Your task to perform on an android device: turn off javascript in the chrome app Image 0: 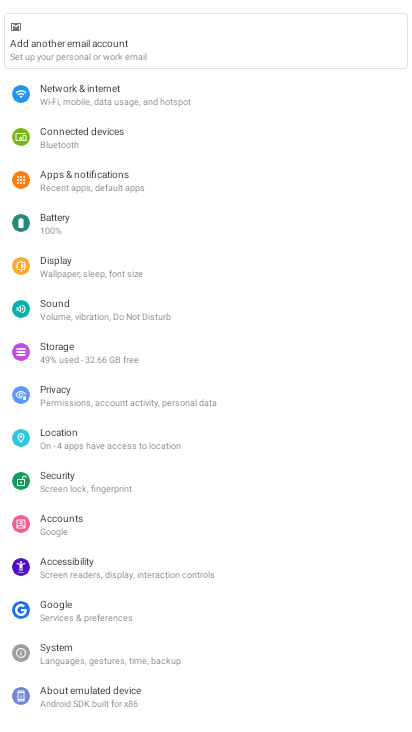
Step 0: press home button
Your task to perform on an android device: turn off javascript in the chrome app Image 1: 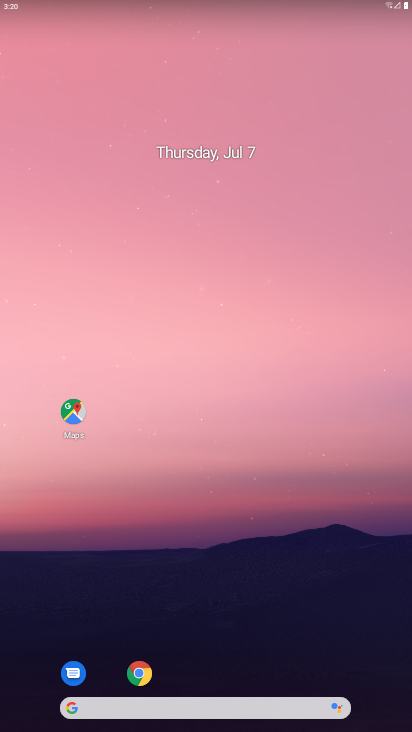
Step 1: click (141, 674)
Your task to perform on an android device: turn off javascript in the chrome app Image 2: 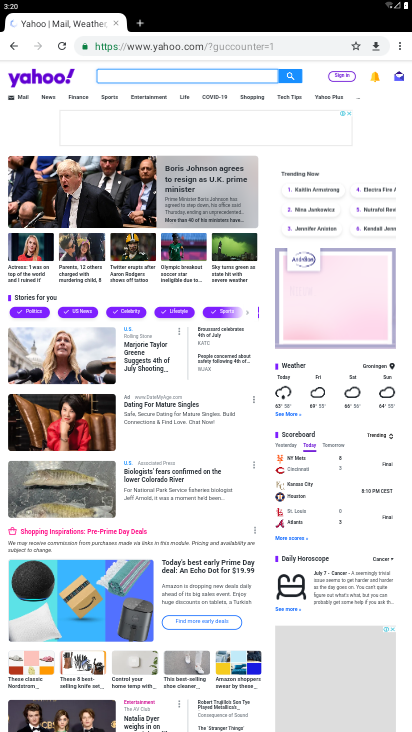
Step 2: drag from (399, 44) to (317, 313)
Your task to perform on an android device: turn off javascript in the chrome app Image 3: 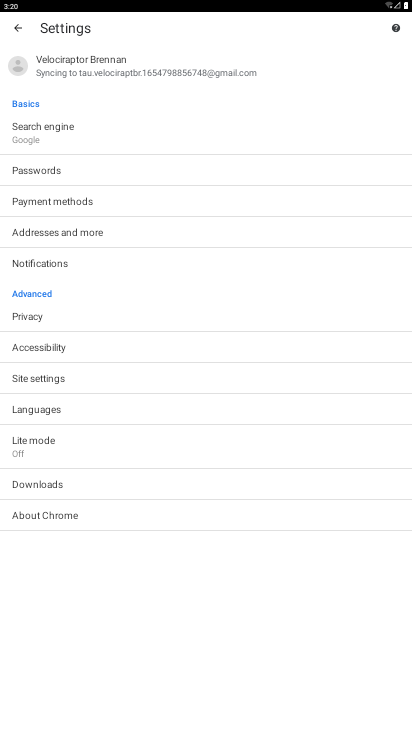
Step 3: click (52, 374)
Your task to perform on an android device: turn off javascript in the chrome app Image 4: 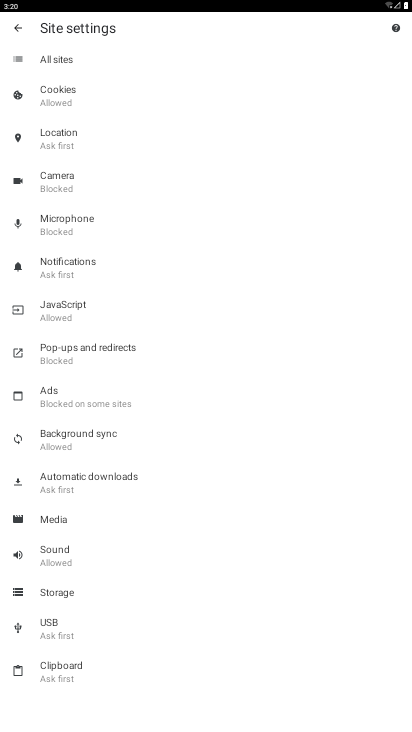
Step 4: click (74, 309)
Your task to perform on an android device: turn off javascript in the chrome app Image 5: 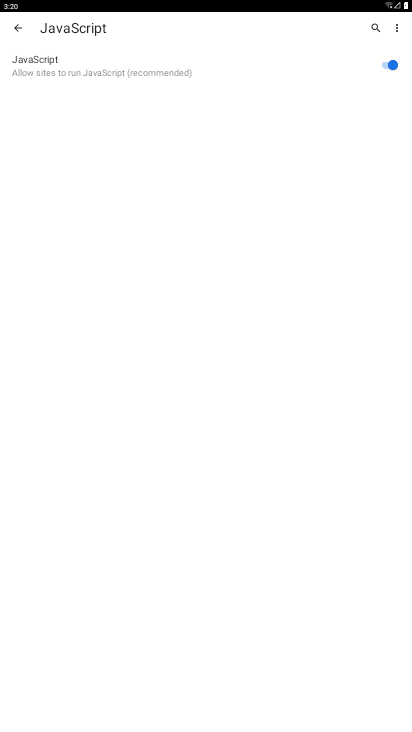
Step 5: click (384, 58)
Your task to perform on an android device: turn off javascript in the chrome app Image 6: 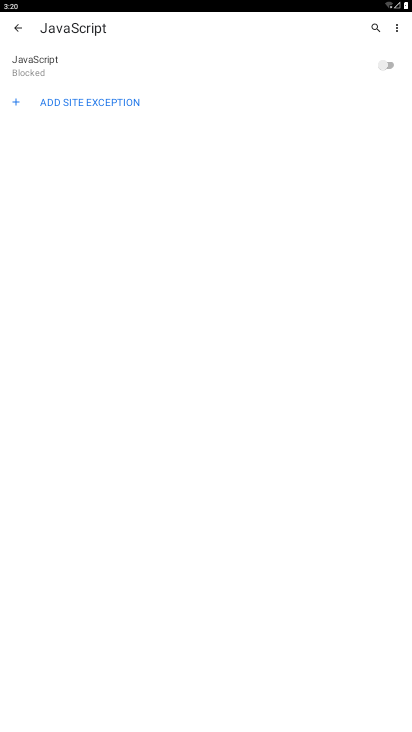
Step 6: task complete